Your task to perform on an android device: show emergency info Image 0: 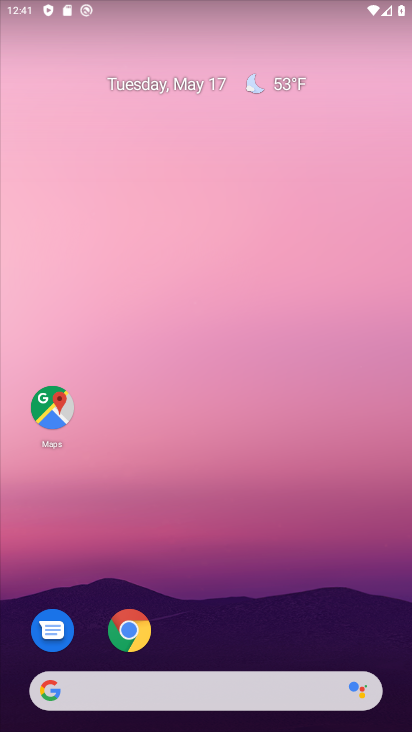
Step 0: drag from (217, 662) to (273, 162)
Your task to perform on an android device: show emergency info Image 1: 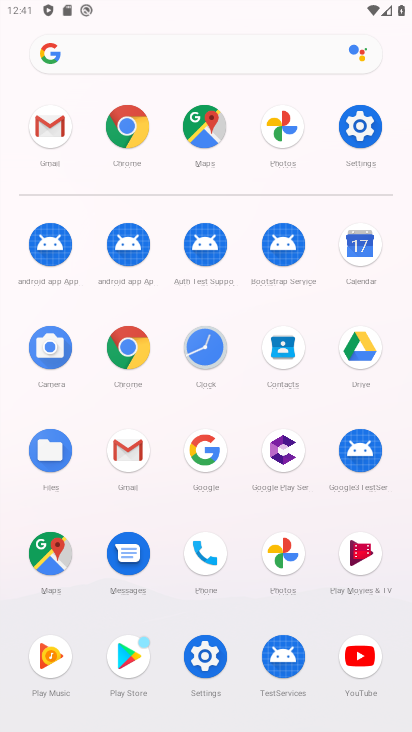
Step 1: click (366, 157)
Your task to perform on an android device: show emergency info Image 2: 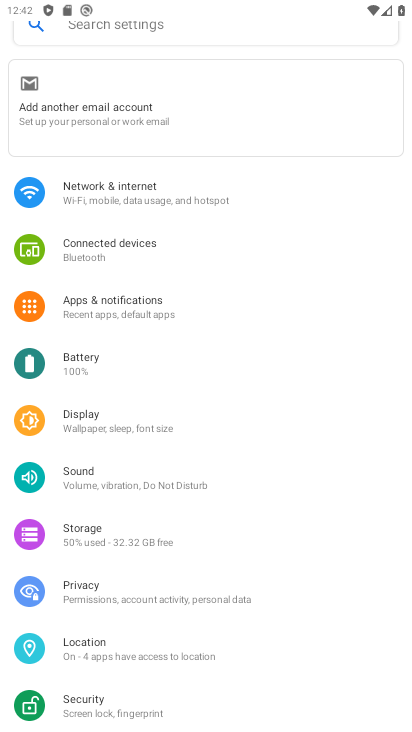
Step 2: drag from (175, 551) to (198, 309)
Your task to perform on an android device: show emergency info Image 3: 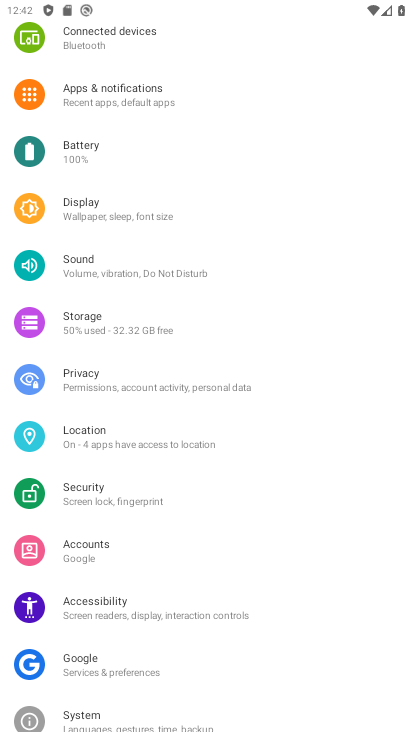
Step 3: drag from (158, 527) to (183, 394)
Your task to perform on an android device: show emergency info Image 4: 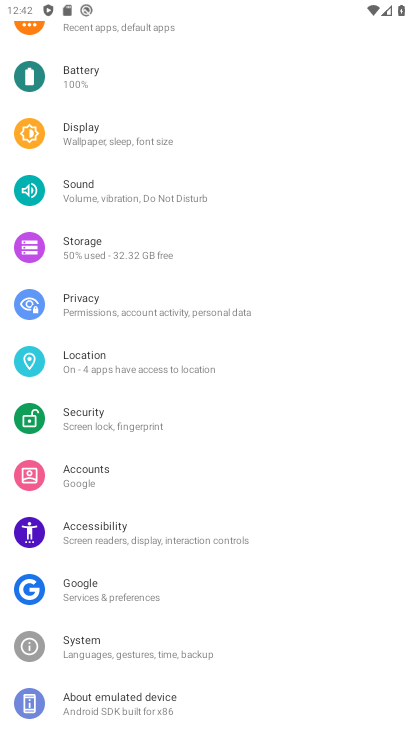
Step 4: drag from (187, 372) to (197, 325)
Your task to perform on an android device: show emergency info Image 5: 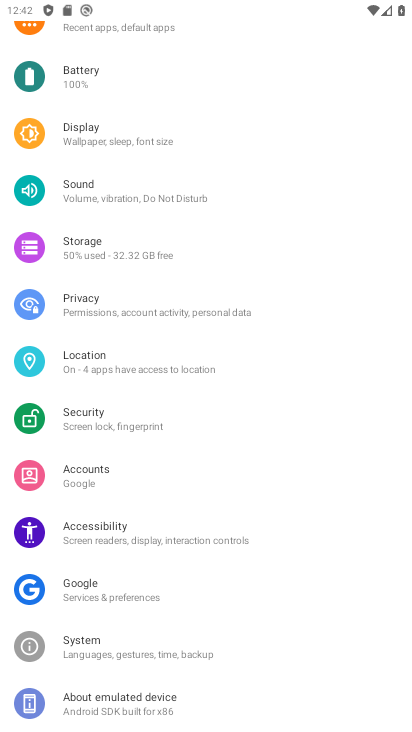
Step 5: click (164, 693)
Your task to perform on an android device: show emergency info Image 6: 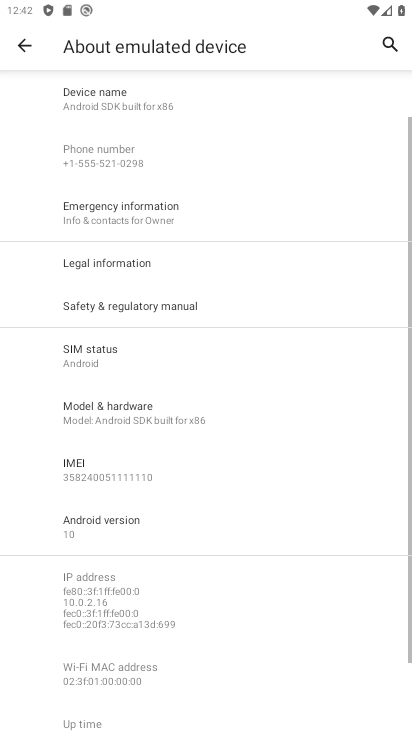
Step 6: click (164, 230)
Your task to perform on an android device: show emergency info Image 7: 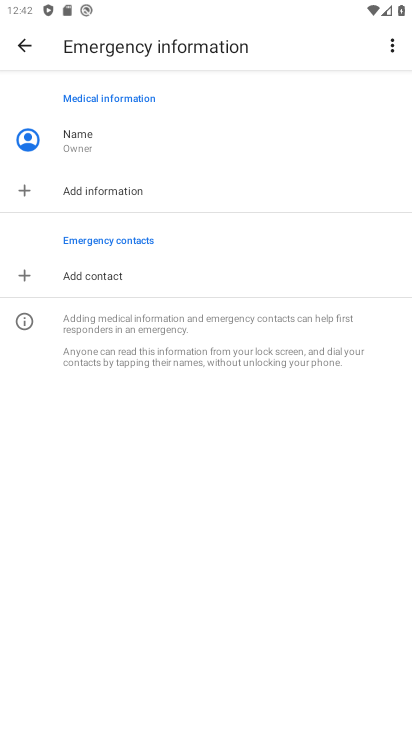
Step 7: task complete